Your task to perform on an android device: turn off priority inbox in the gmail app Image 0: 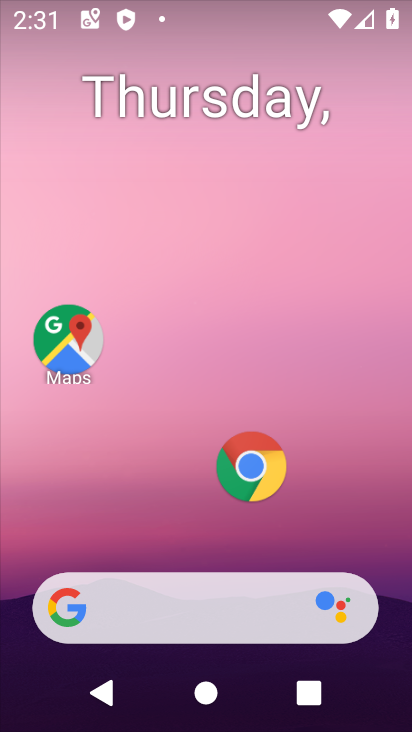
Step 0: drag from (200, 542) to (250, 136)
Your task to perform on an android device: turn off priority inbox in the gmail app Image 1: 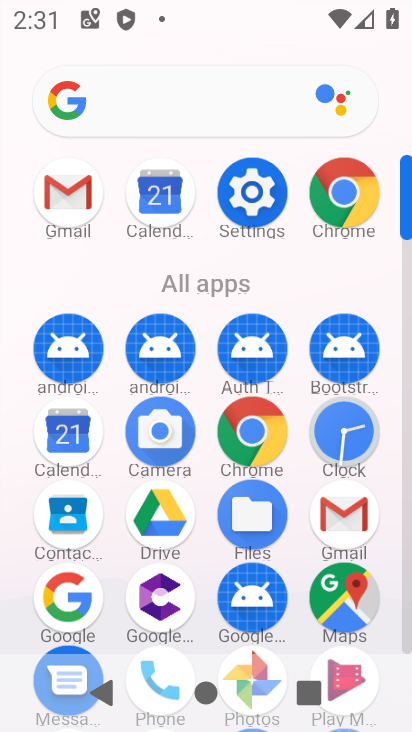
Step 1: click (335, 520)
Your task to perform on an android device: turn off priority inbox in the gmail app Image 2: 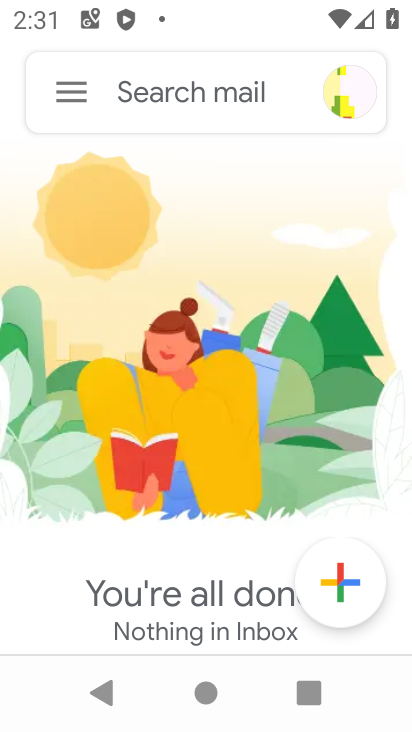
Step 2: click (73, 93)
Your task to perform on an android device: turn off priority inbox in the gmail app Image 3: 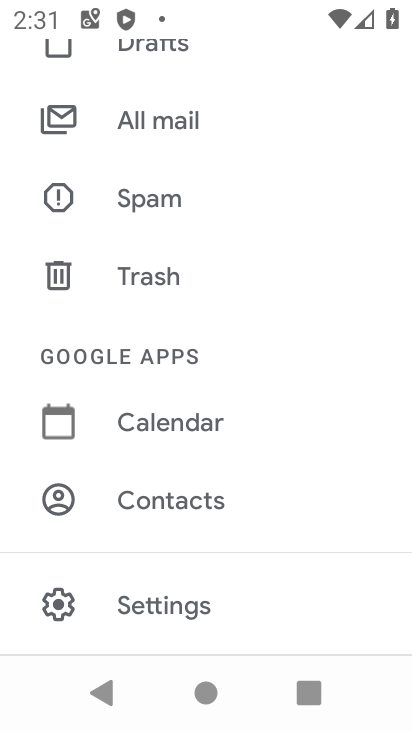
Step 3: click (157, 610)
Your task to perform on an android device: turn off priority inbox in the gmail app Image 4: 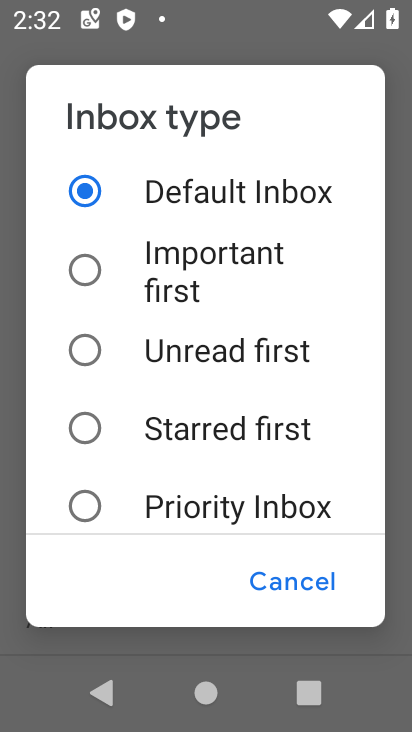
Step 4: task complete